Your task to perform on an android device: When is my next meeting? Image 0: 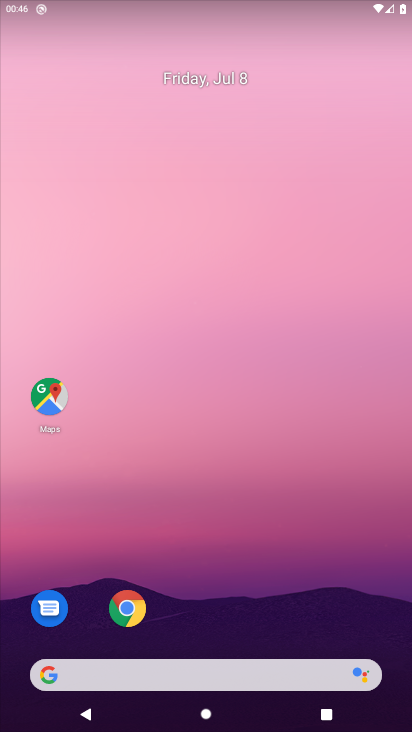
Step 0: drag from (296, 600) to (324, 87)
Your task to perform on an android device: When is my next meeting? Image 1: 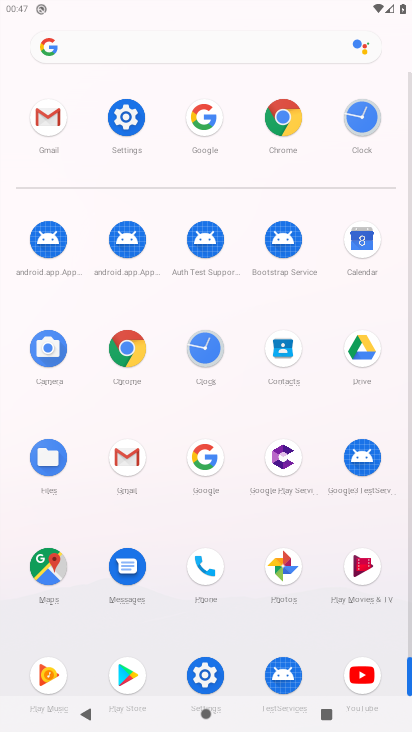
Step 1: click (369, 236)
Your task to perform on an android device: When is my next meeting? Image 2: 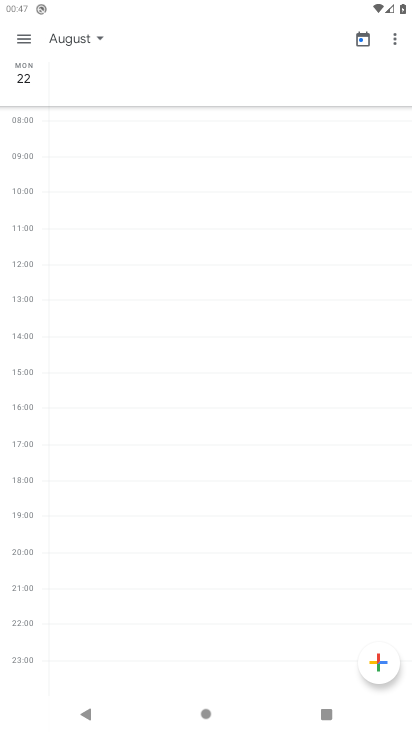
Step 2: click (61, 33)
Your task to perform on an android device: When is my next meeting? Image 3: 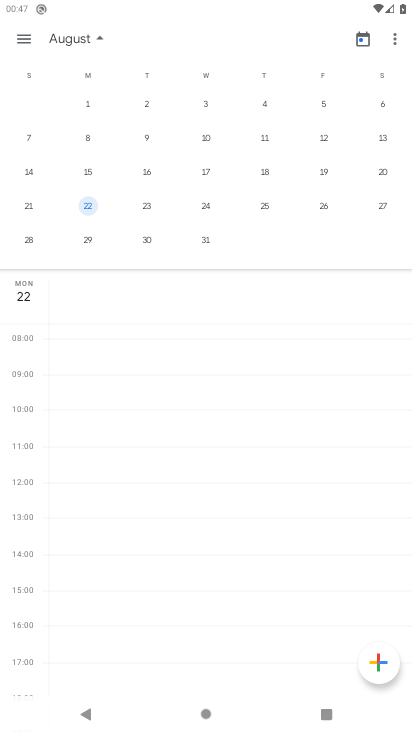
Step 3: drag from (67, 114) to (375, 159)
Your task to perform on an android device: When is my next meeting? Image 4: 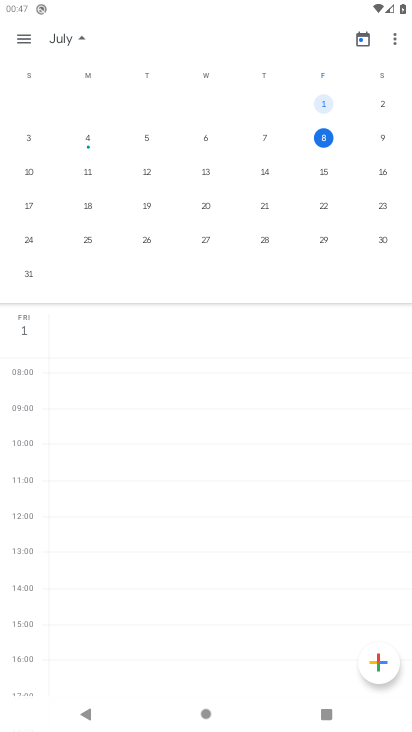
Step 4: click (377, 134)
Your task to perform on an android device: When is my next meeting? Image 5: 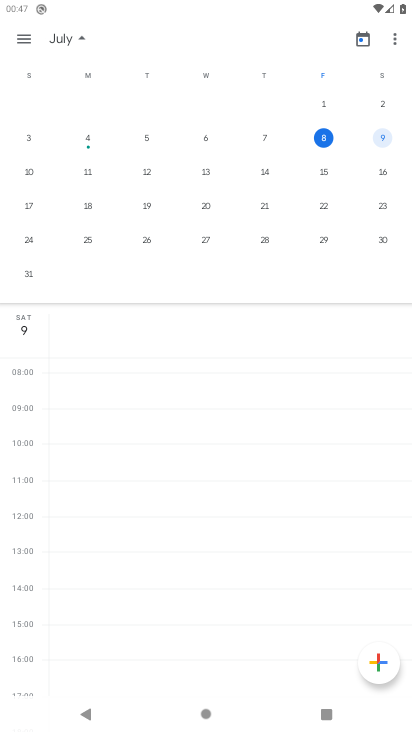
Step 5: task complete